Your task to perform on an android device: turn on data saver in the chrome app Image 0: 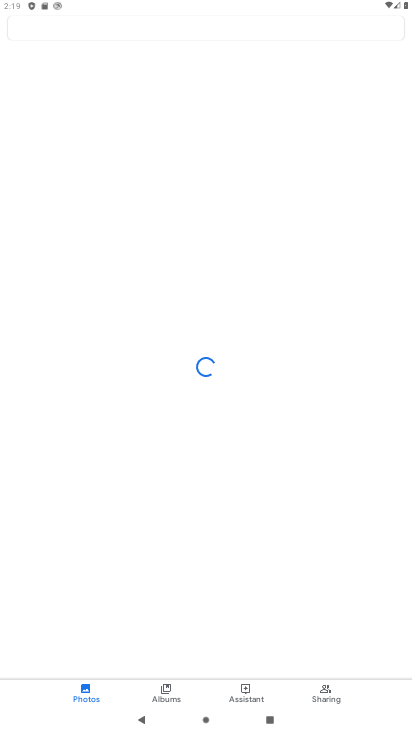
Step 0: press home button
Your task to perform on an android device: turn on data saver in the chrome app Image 1: 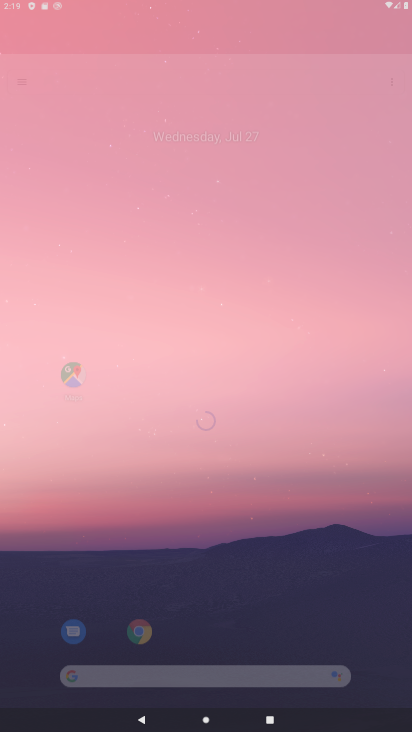
Step 1: drag from (393, 632) to (200, 3)
Your task to perform on an android device: turn on data saver in the chrome app Image 2: 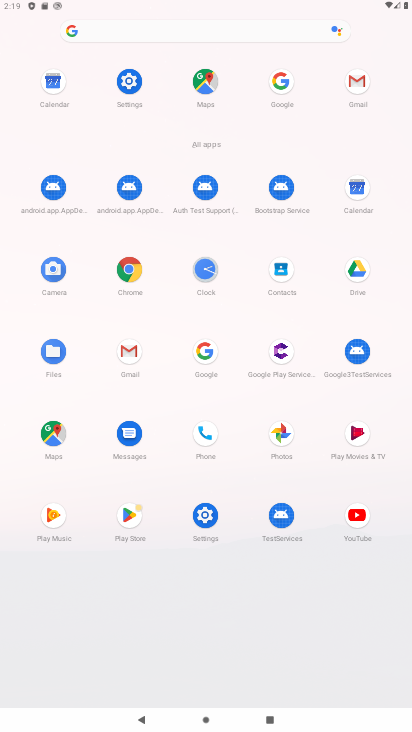
Step 2: click (122, 262)
Your task to perform on an android device: turn on data saver in the chrome app Image 3: 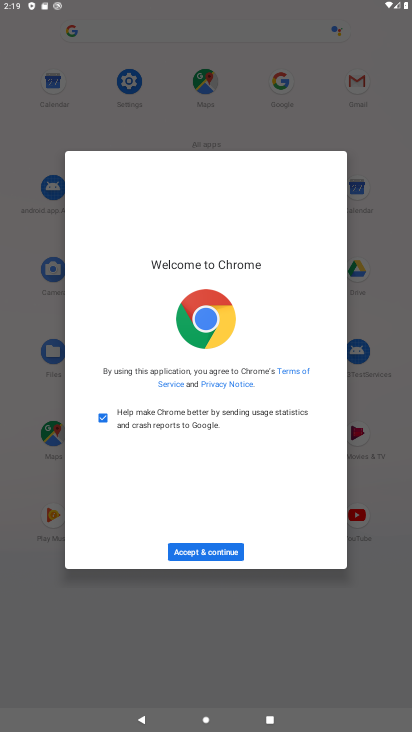
Step 3: click (214, 547)
Your task to perform on an android device: turn on data saver in the chrome app Image 4: 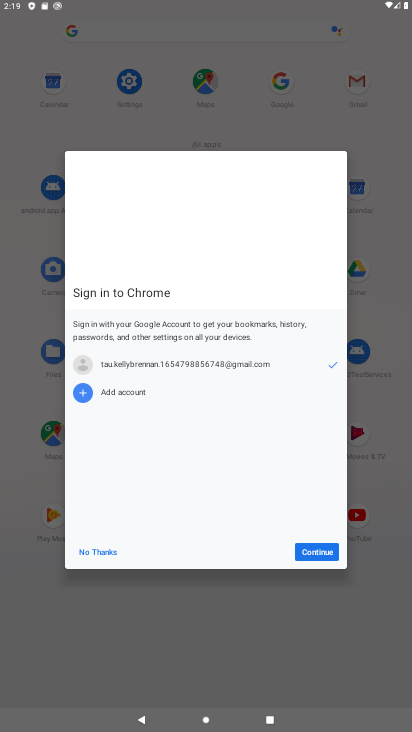
Step 4: click (300, 547)
Your task to perform on an android device: turn on data saver in the chrome app Image 5: 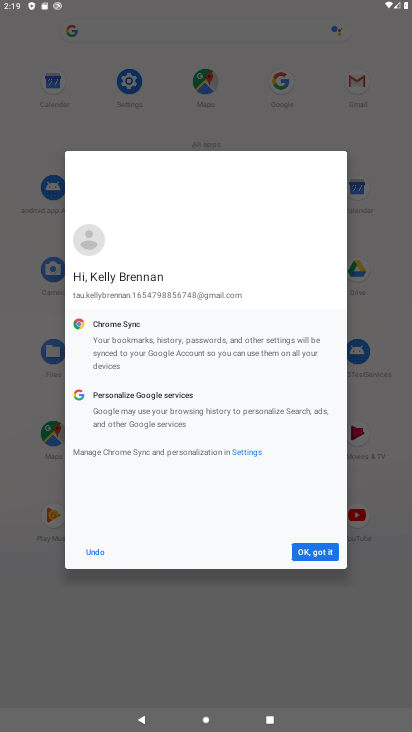
Step 5: click (300, 547)
Your task to perform on an android device: turn on data saver in the chrome app Image 6: 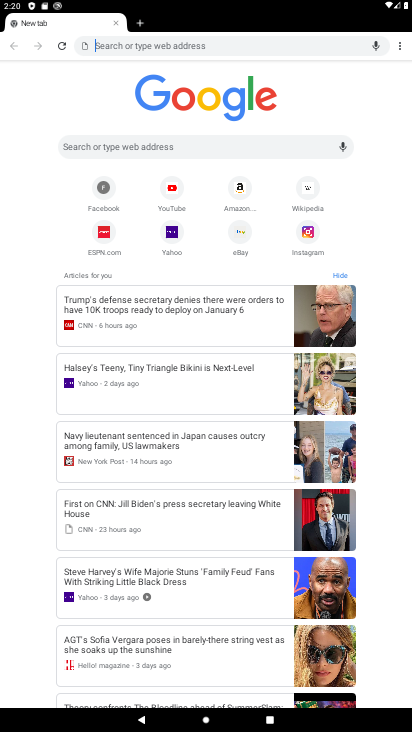
Step 6: click (403, 42)
Your task to perform on an android device: turn on data saver in the chrome app Image 7: 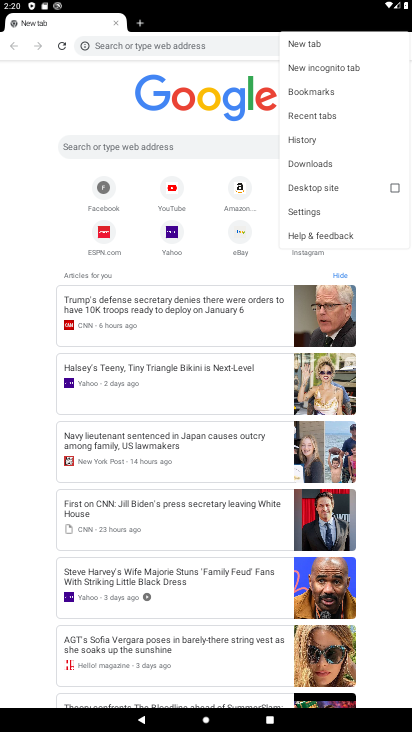
Step 7: click (308, 215)
Your task to perform on an android device: turn on data saver in the chrome app Image 8: 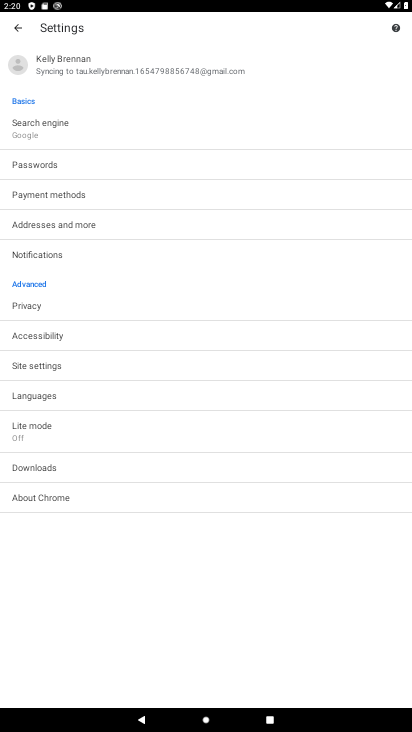
Step 8: click (74, 423)
Your task to perform on an android device: turn on data saver in the chrome app Image 9: 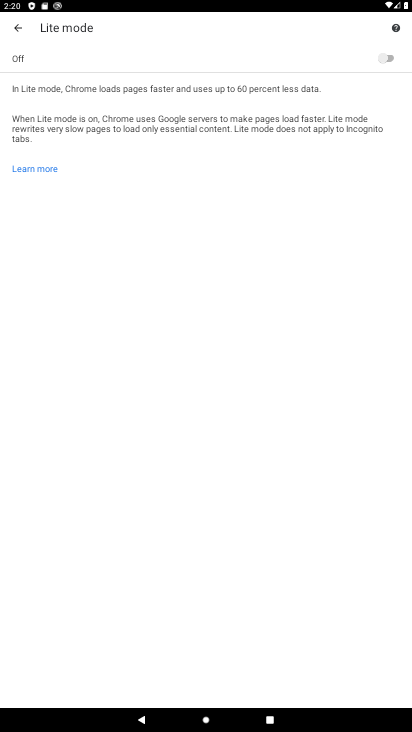
Step 9: click (348, 68)
Your task to perform on an android device: turn on data saver in the chrome app Image 10: 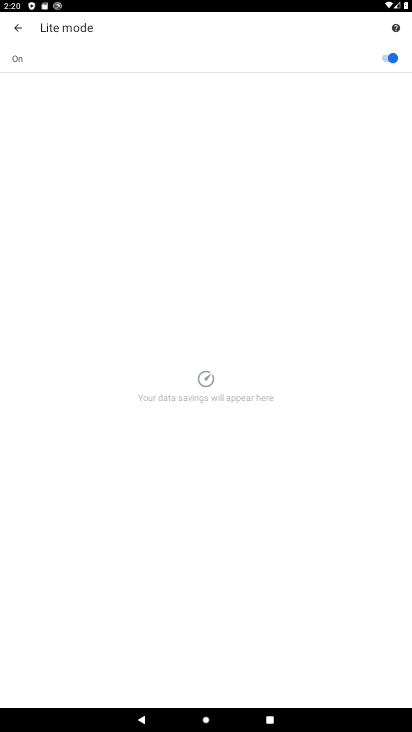
Step 10: task complete